Your task to perform on an android device: open chrome and create a bookmark for the current page Image 0: 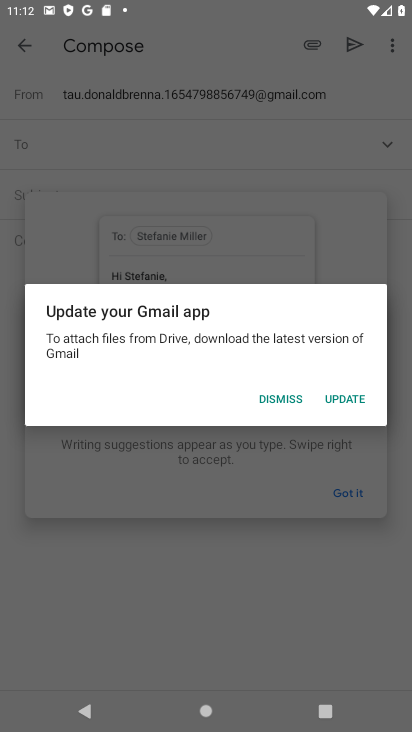
Step 0: press home button
Your task to perform on an android device: open chrome and create a bookmark for the current page Image 1: 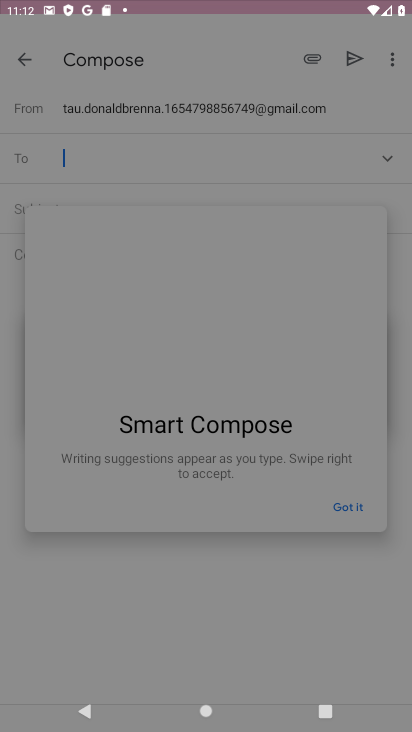
Step 1: drag from (152, 605) to (203, 70)
Your task to perform on an android device: open chrome and create a bookmark for the current page Image 2: 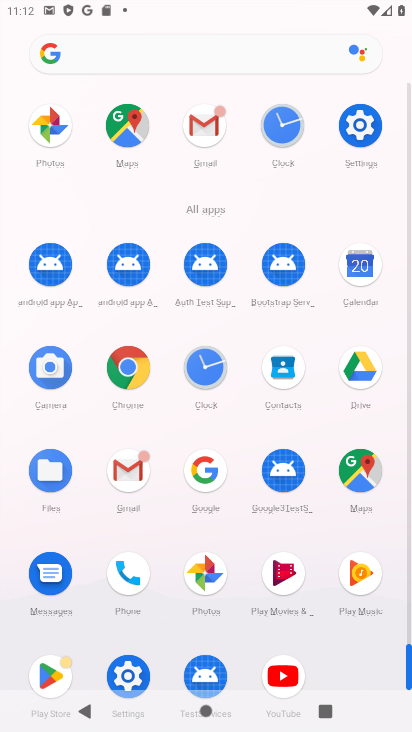
Step 2: click (123, 361)
Your task to perform on an android device: open chrome and create a bookmark for the current page Image 3: 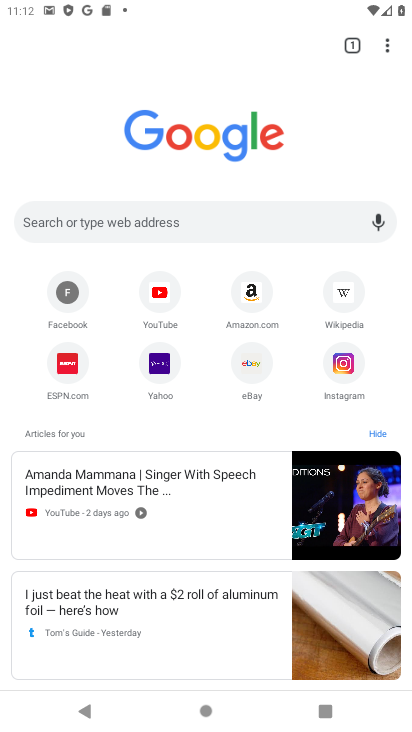
Step 3: task complete